Your task to perform on an android device: clear all cookies in the chrome app Image 0: 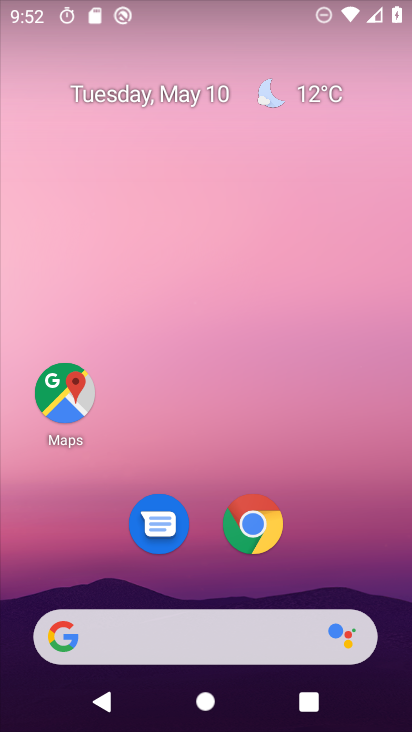
Step 0: click (267, 527)
Your task to perform on an android device: clear all cookies in the chrome app Image 1: 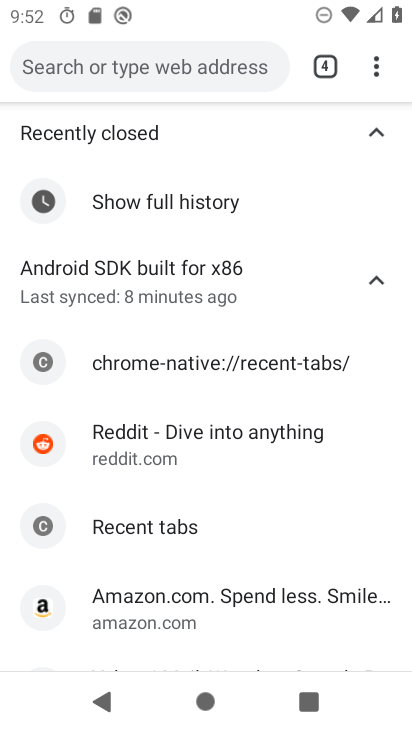
Step 1: click (371, 72)
Your task to perform on an android device: clear all cookies in the chrome app Image 2: 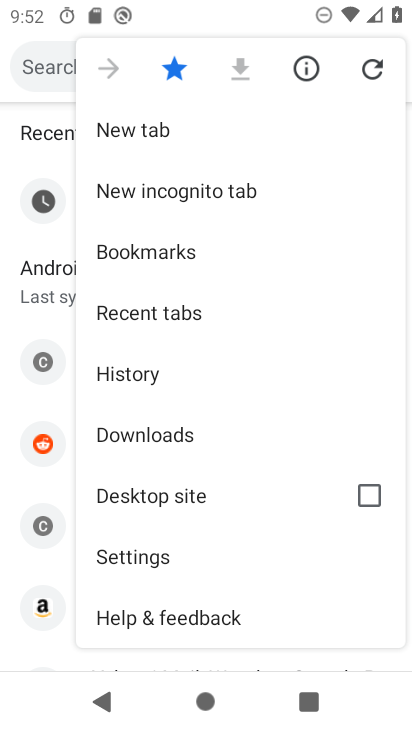
Step 2: click (169, 552)
Your task to perform on an android device: clear all cookies in the chrome app Image 3: 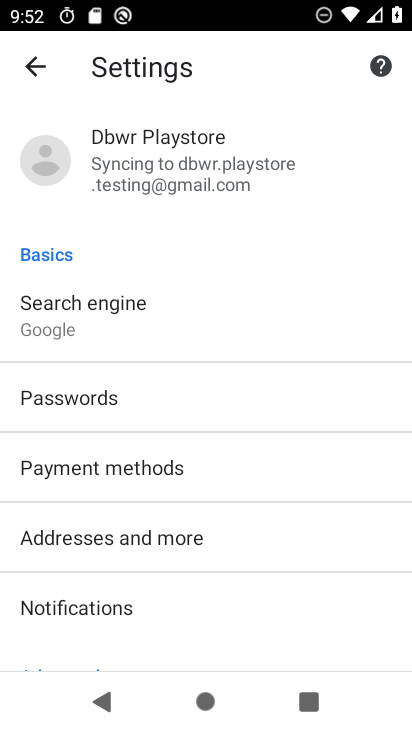
Step 3: drag from (278, 534) to (283, 193)
Your task to perform on an android device: clear all cookies in the chrome app Image 4: 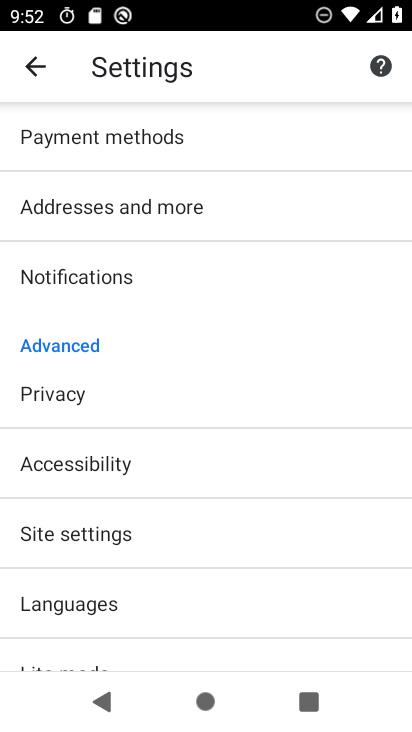
Step 4: click (100, 390)
Your task to perform on an android device: clear all cookies in the chrome app Image 5: 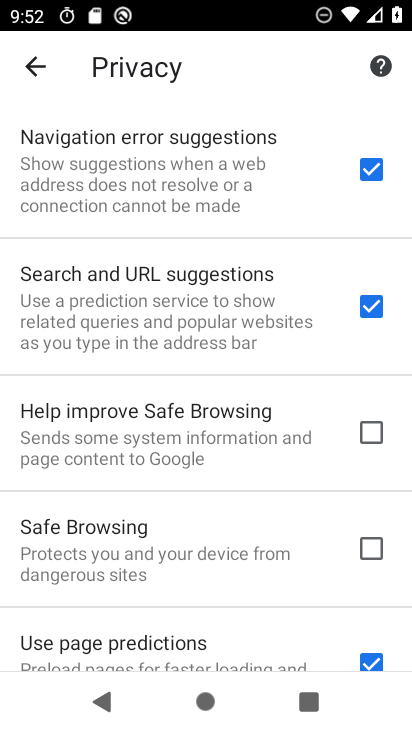
Step 5: drag from (196, 557) to (200, 199)
Your task to perform on an android device: clear all cookies in the chrome app Image 6: 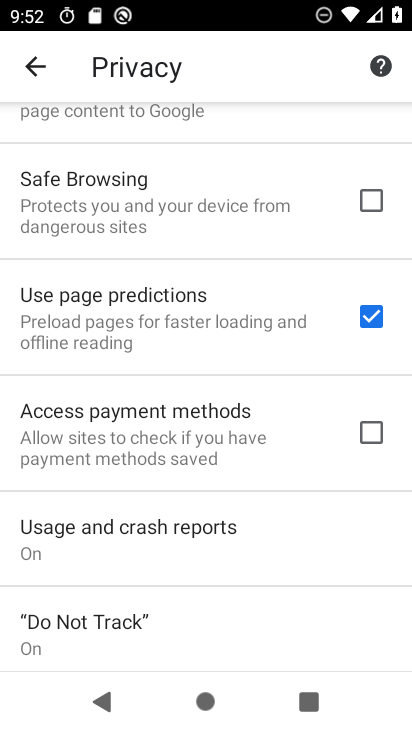
Step 6: drag from (144, 557) to (164, 8)
Your task to perform on an android device: clear all cookies in the chrome app Image 7: 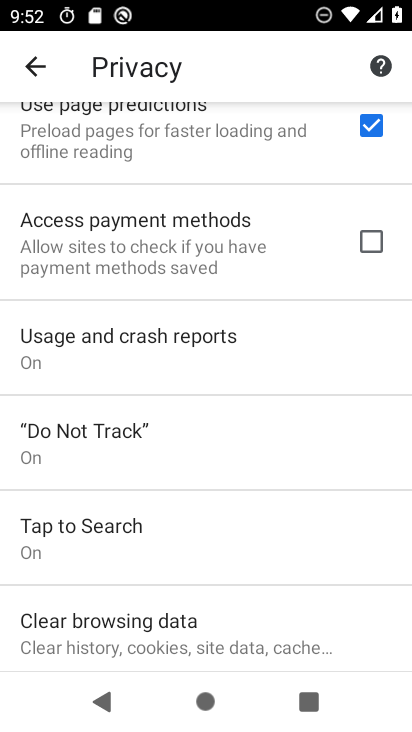
Step 7: click (164, 623)
Your task to perform on an android device: clear all cookies in the chrome app Image 8: 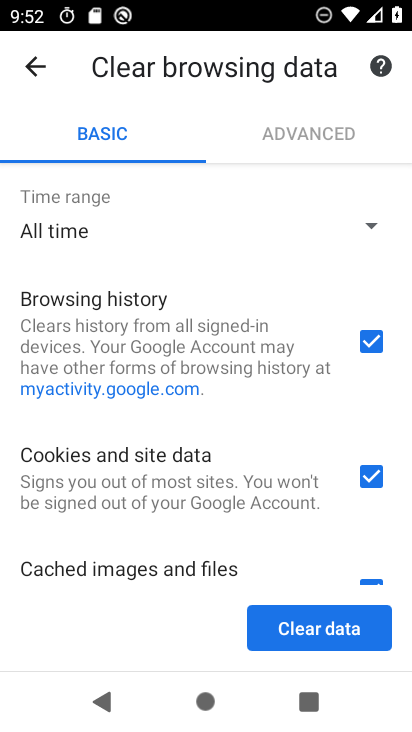
Step 8: click (366, 341)
Your task to perform on an android device: clear all cookies in the chrome app Image 9: 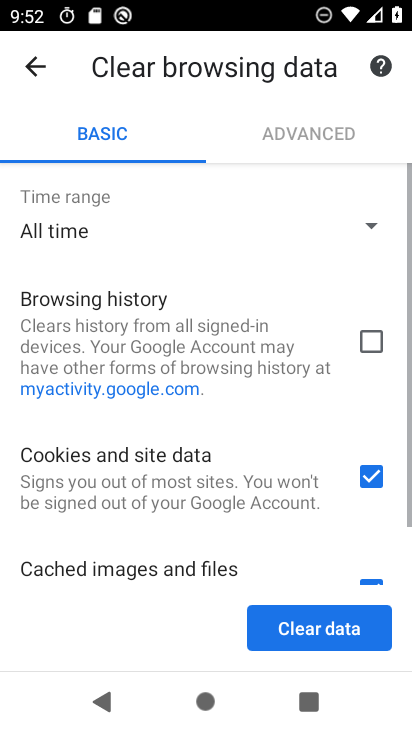
Step 9: drag from (291, 442) to (286, 283)
Your task to perform on an android device: clear all cookies in the chrome app Image 10: 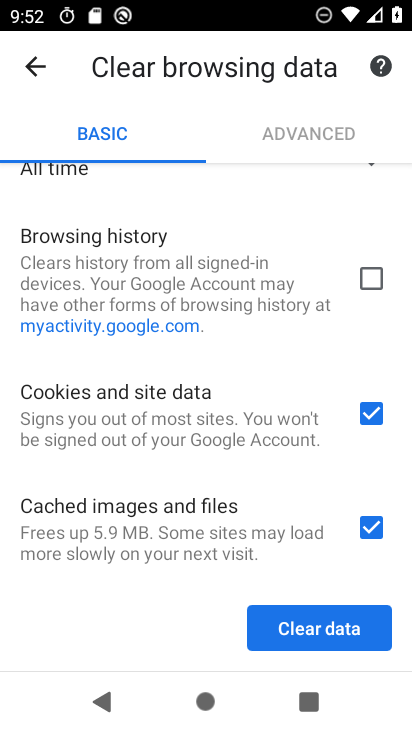
Step 10: click (364, 523)
Your task to perform on an android device: clear all cookies in the chrome app Image 11: 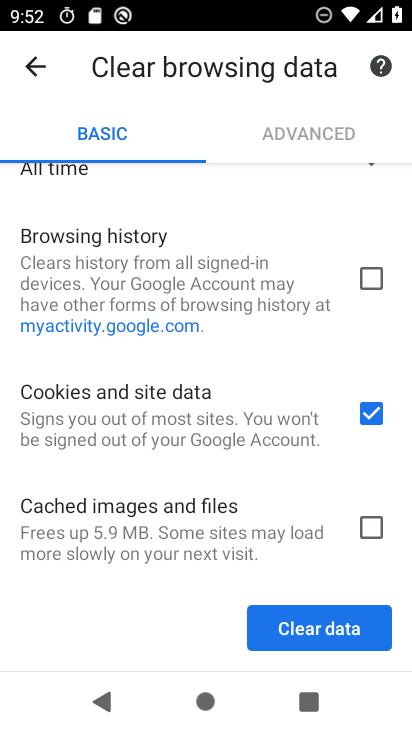
Step 11: click (326, 632)
Your task to perform on an android device: clear all cookies in the chrome app Image 12: 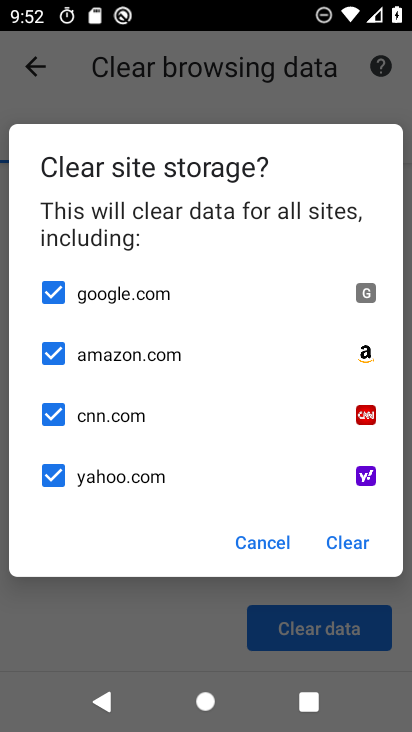
Step 12: click (341, 528)
Your task to perform on an android device: clear all cookies in the chrome app Image 13: 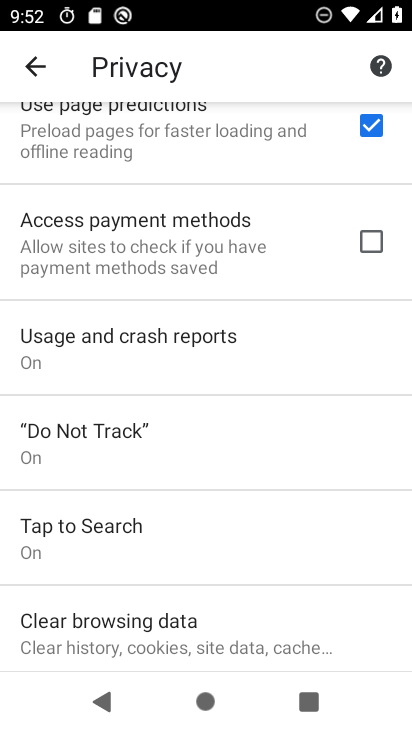
Step 13: task complete